Your task to perform on an android device: What's on my calendar tomorrow? Image 0: 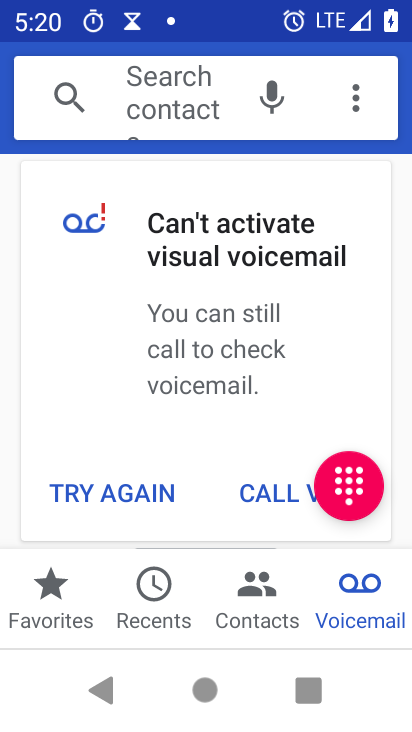
Step 0: press home button
Your task to perform on an android device: What's on my calendar tomorrow? Image 1: 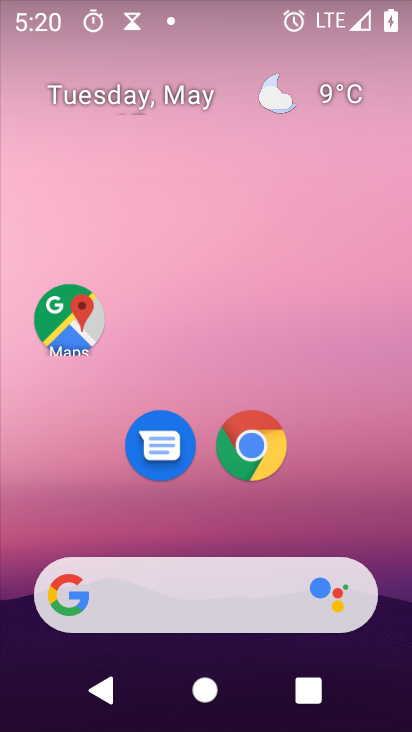
Step 1: drag from (307, 559) to (362, 13)
Your task to perform on an android device: What's on my calendar tomorrow? Image 2: 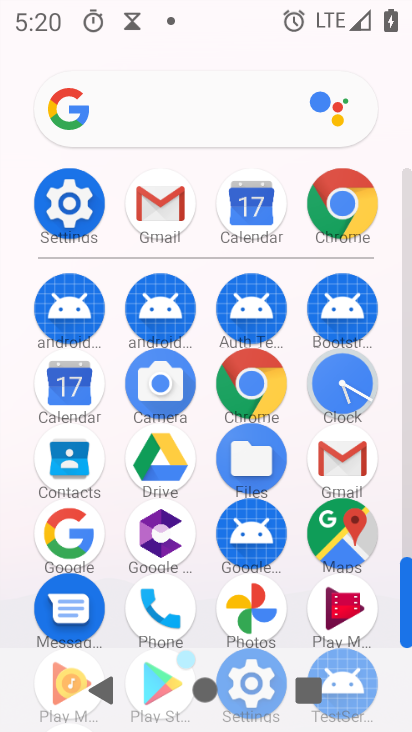
Step 2: click (88, 399)
Your task to perform on an android device: What's on my calendar tomorrow? Image 3: 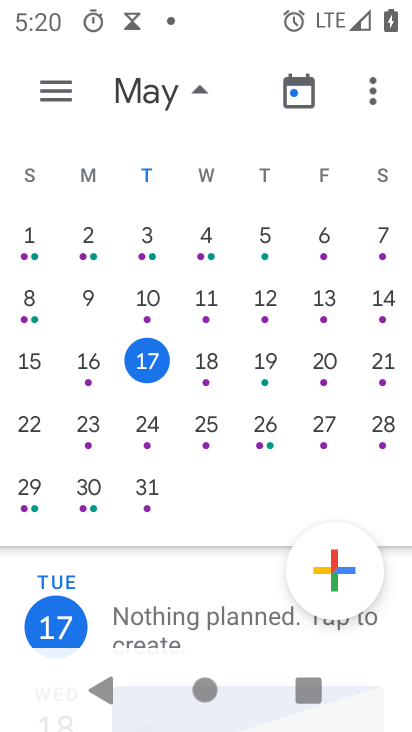
Step 3: click (199, 364)
Your task to perform on an android device: What's on my calendar tomorrow? Image 4: 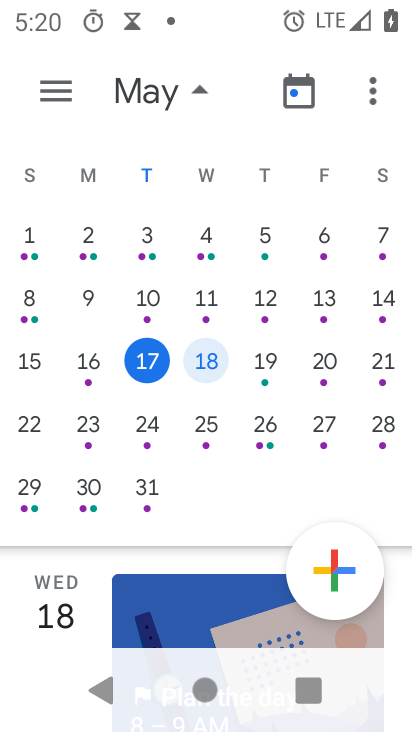
Step 4: task complete